Your task to perform on an android device: turn on airplane mode Image 0: 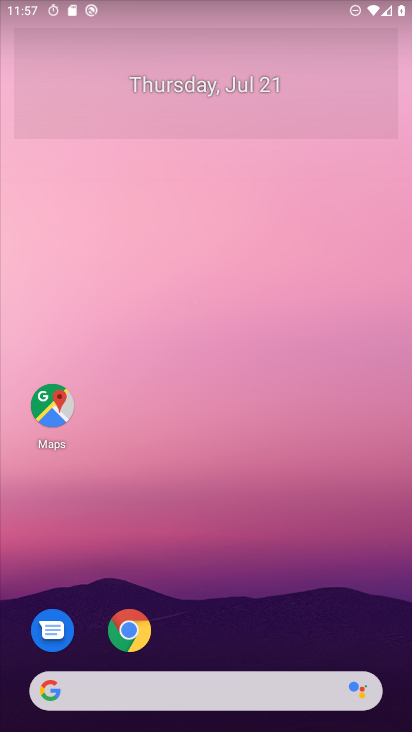
Step 0: press home button
Your task to perform on an android device: turn on airplane mode Image 1: 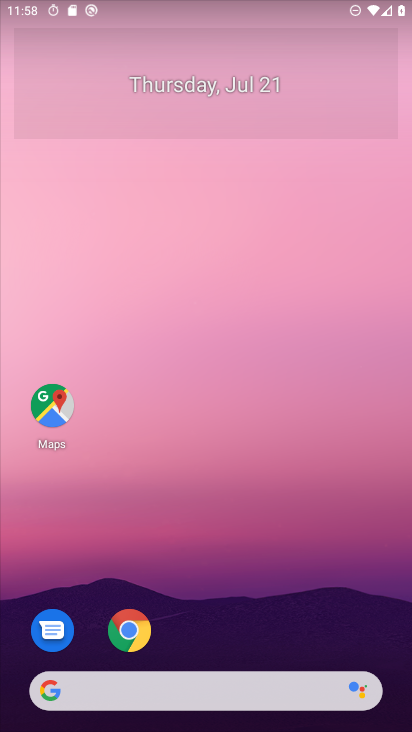
Step 1: drag from (228, 4) to (139, 503)
Your task to perform on an android device: turn on airplane mode Image 2: 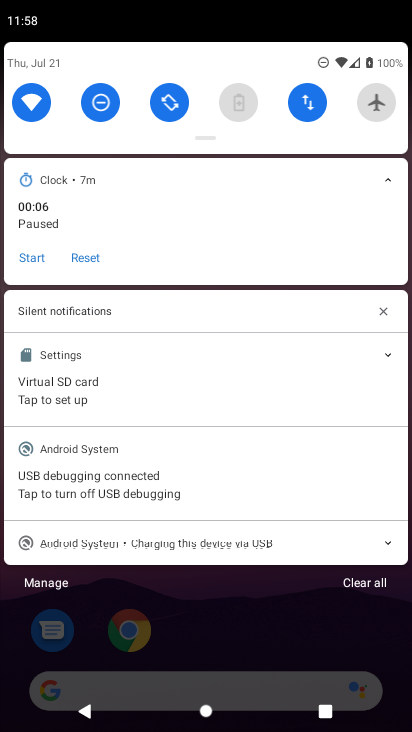
Step 2: click (376, 97)
Your task to perform on an android device: turn on airplane mode Image 3: 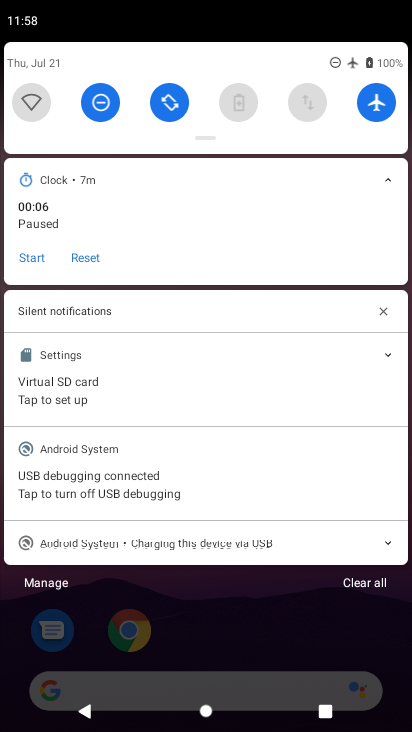
Step 3: task complete